Your task to perform on an android device: Show me popular videos on Youtube Image 0: 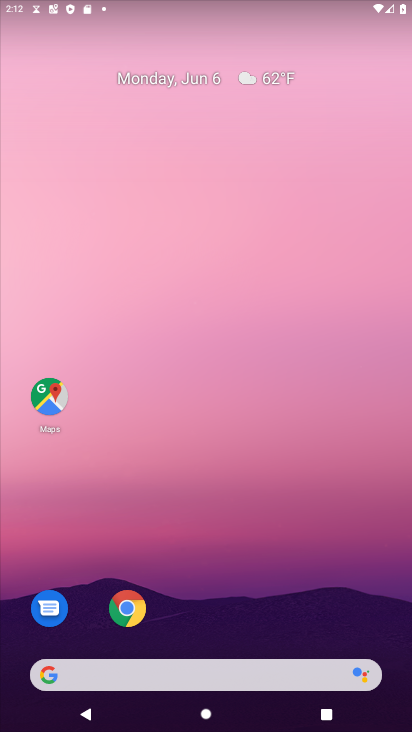
Step 0: drag from (233, 571) to (76, 0)
Your task to perform on an android device: Show me popular videos on Youtube Image 1: 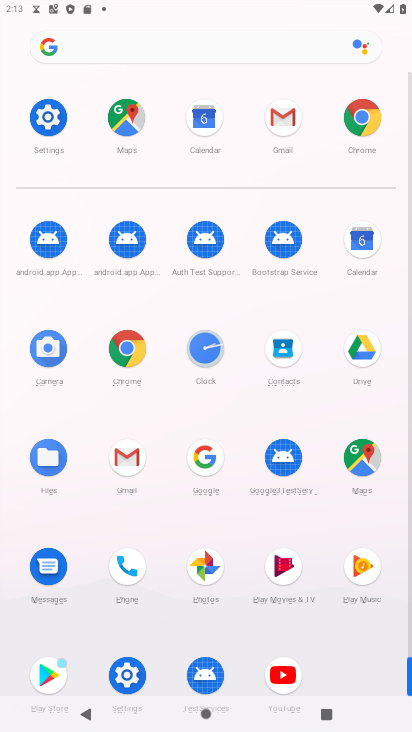
Step 1: click (292, 674)
Your task to perform on an android device: Show me popular videos on Youtube Image 2: 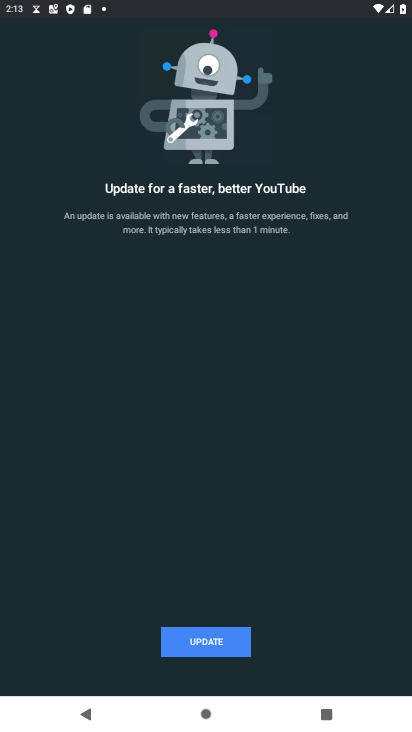
Step 2: click (200, 648)
Your task to perform on an android device: Show me popular videos on Youtube Image 3: 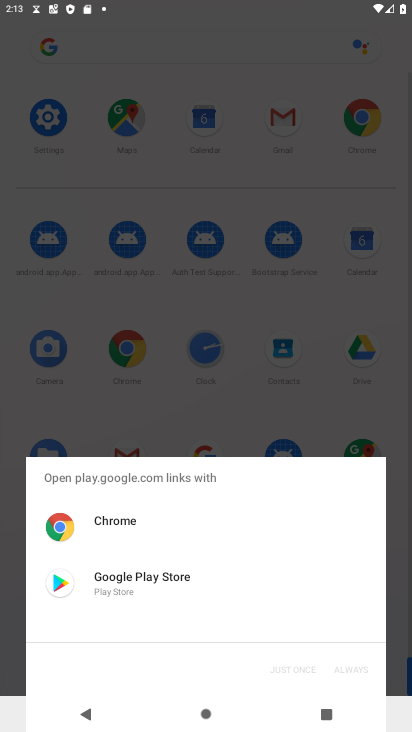
Step 3: click (127, 585)
Your task to perform on an android device: Show me popular videos on Youtube Image 4: 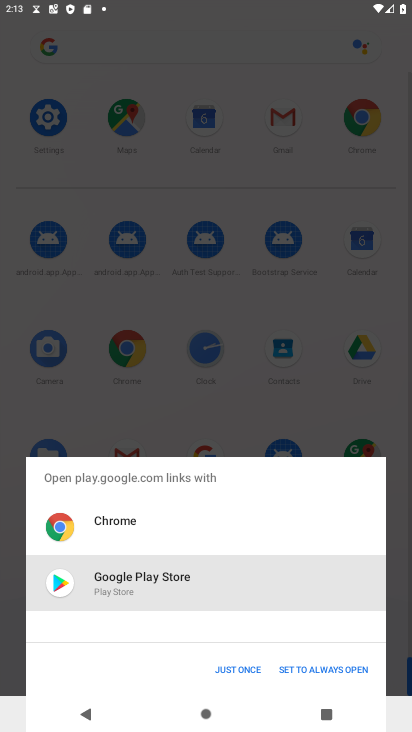
Step 4: click (222, 674)
Your task to perform on an android device: Show me popular videos on Youtube Image 5: 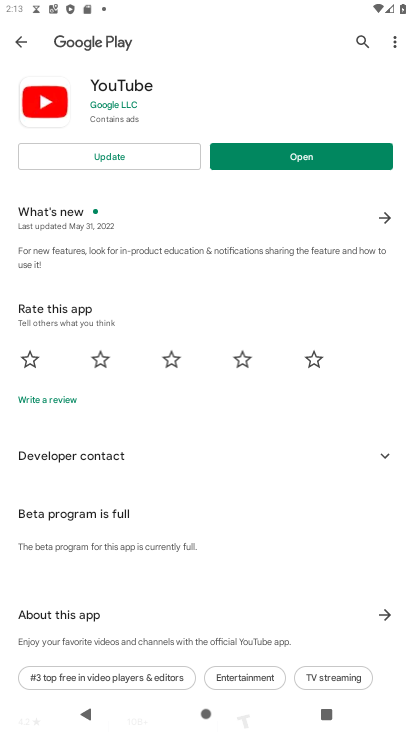
Step 5: click (117, 148)
Your task to perform on an android device: Show me popular videos on Youtube Image 6: 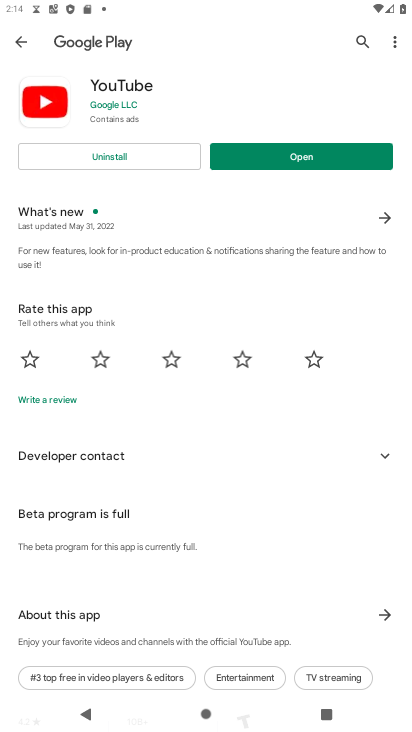
Step 6: click (302, 159)
Your task to perform on an android device: Show me popular videos on Youtube Image 7: 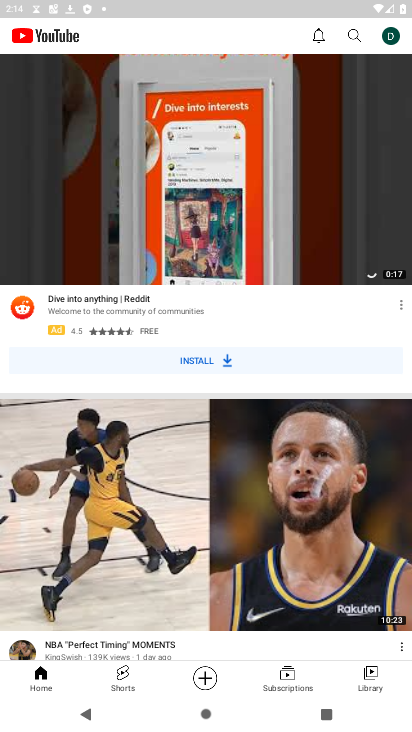
Step 7: click (344, 31)
Your task to perform on an android device: Show me popular videos on Youtube Image 8: 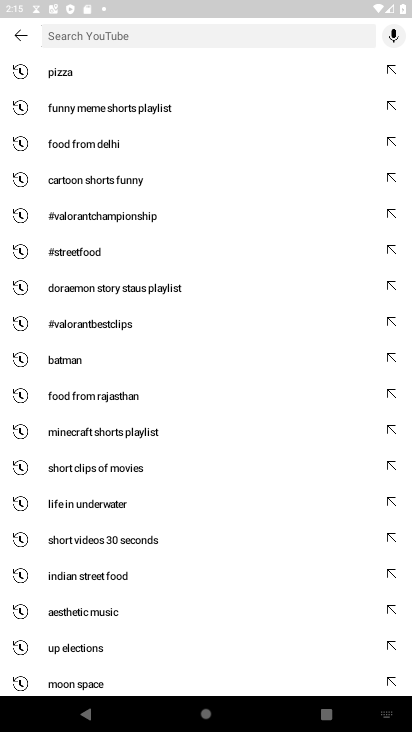
Step 8: type "popularr vidoes"
Your task to perform on an android device: Show me popular videos on Youtube Image 9: 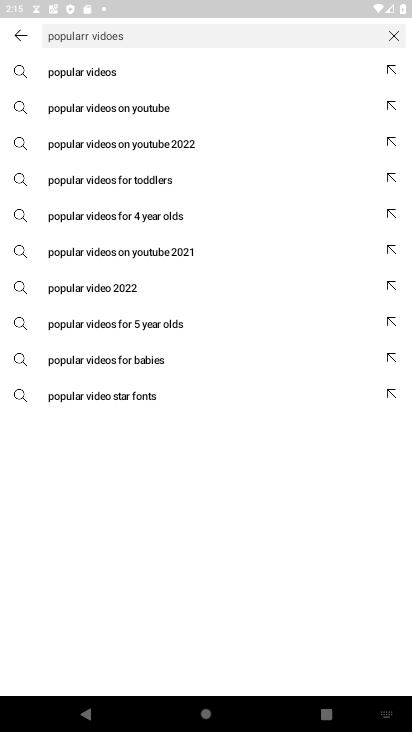
Step 9: click (75, 71)
Your task to perform on an android device: Show me popular videos on Youtube Image 10: 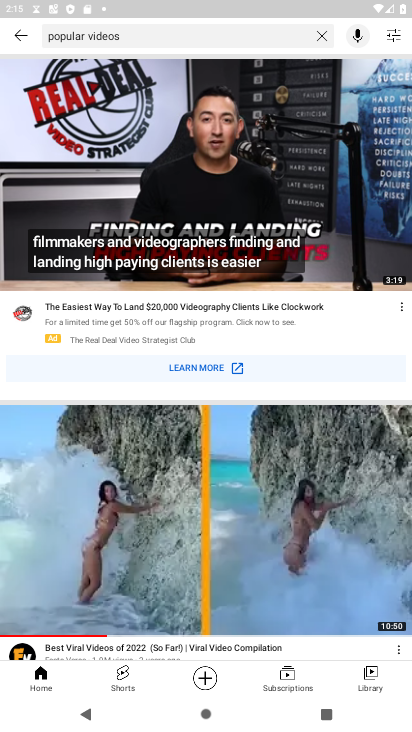
Step 10: task complete